Your task to perform on an android device: Clear the cart on target.com. Add acer predator to the cart on target.com Image 0: 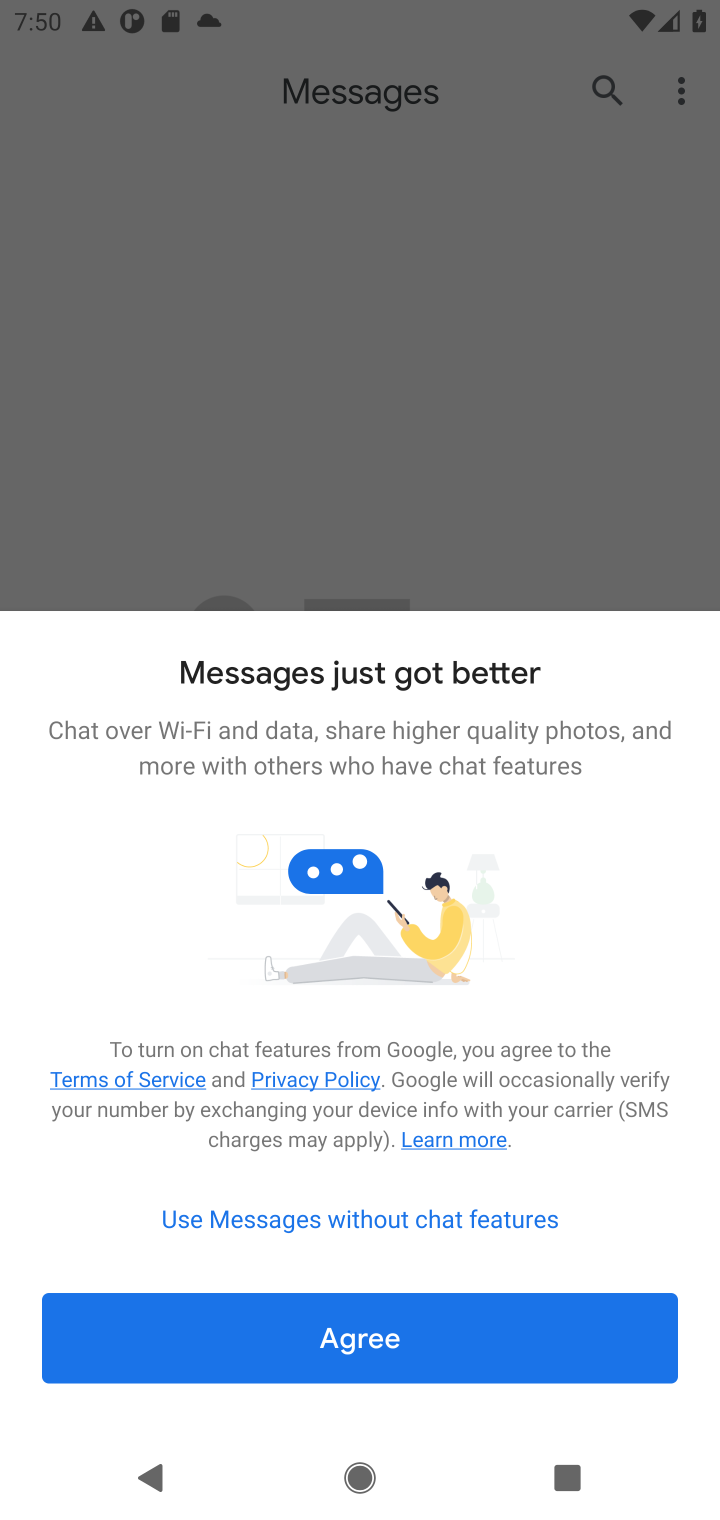
Step 0: press home button
Your task to perform on an android device: Clear the cart on target.com. Add acer predator to the cart on target.com Image 1: 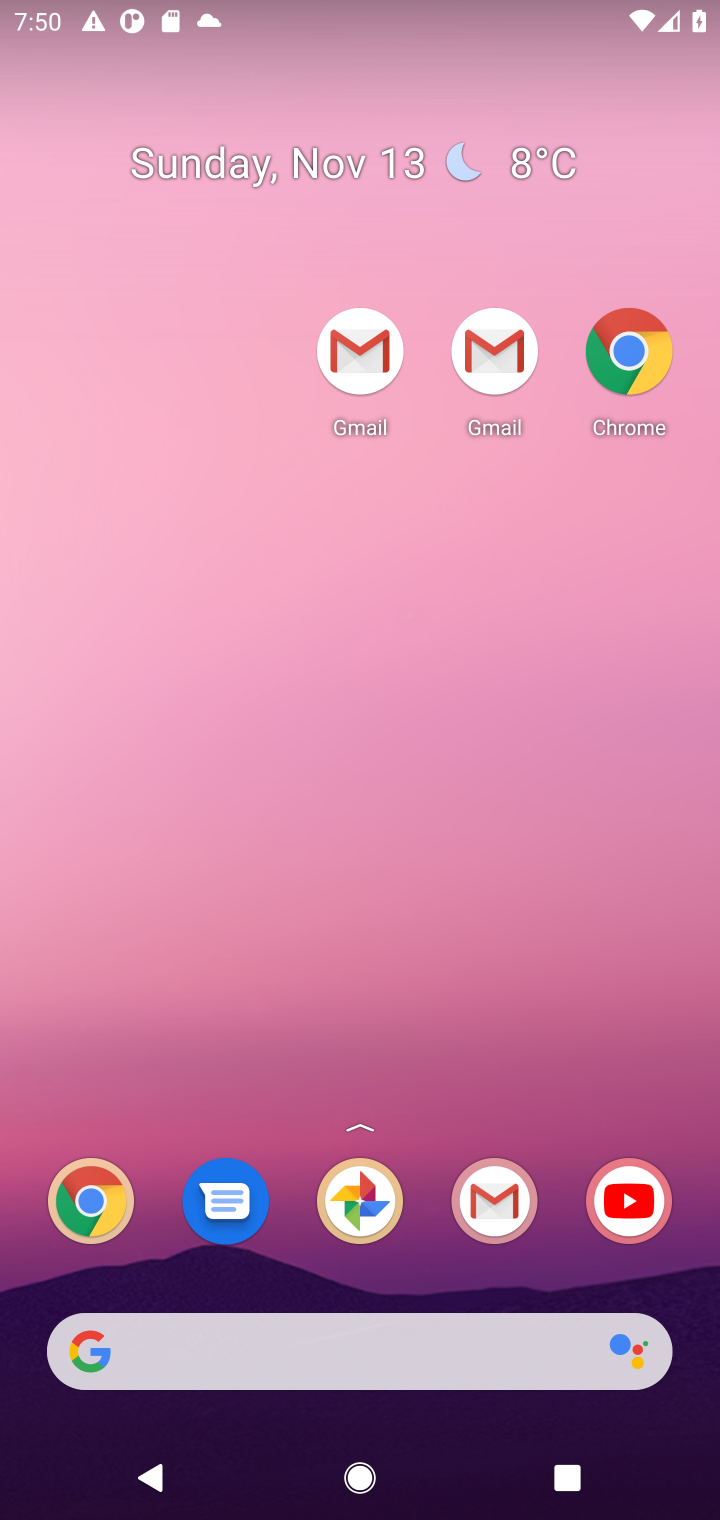
Step 1: drag from (435, 1287) to (9, 142)
Your task to perform on an android device: Clear the cart on target.com. Add acer predator to the cart on target.com Image 2: 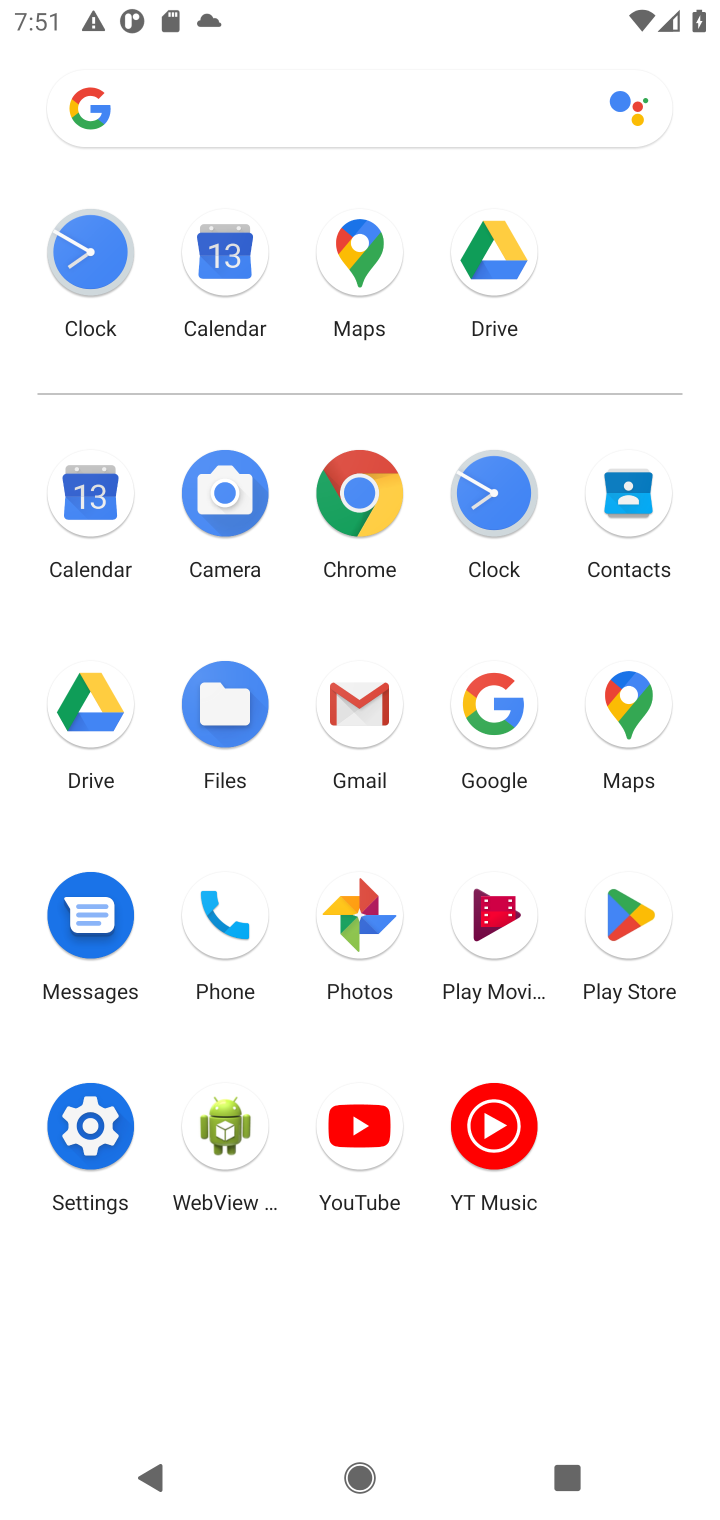
Step 2: click (362, 506)
Your task to perform on an android device: Clear the cart on target.com. Add acer predator to the cart on target.com Image 3: 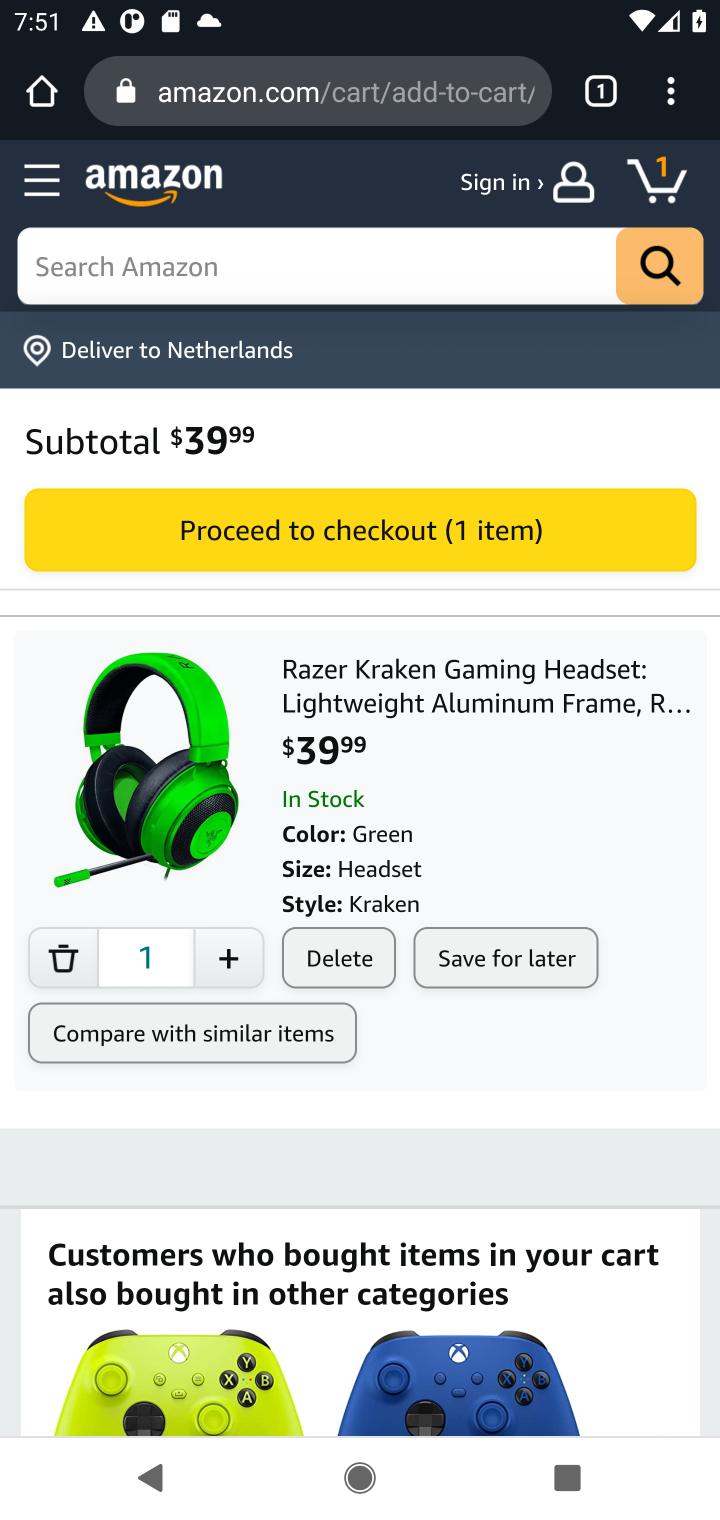
Step 3: click (350, 86)
Your task to perform on an android device: Clear the cart on target.com. Add acer predator to the cart on target.com Image 4: 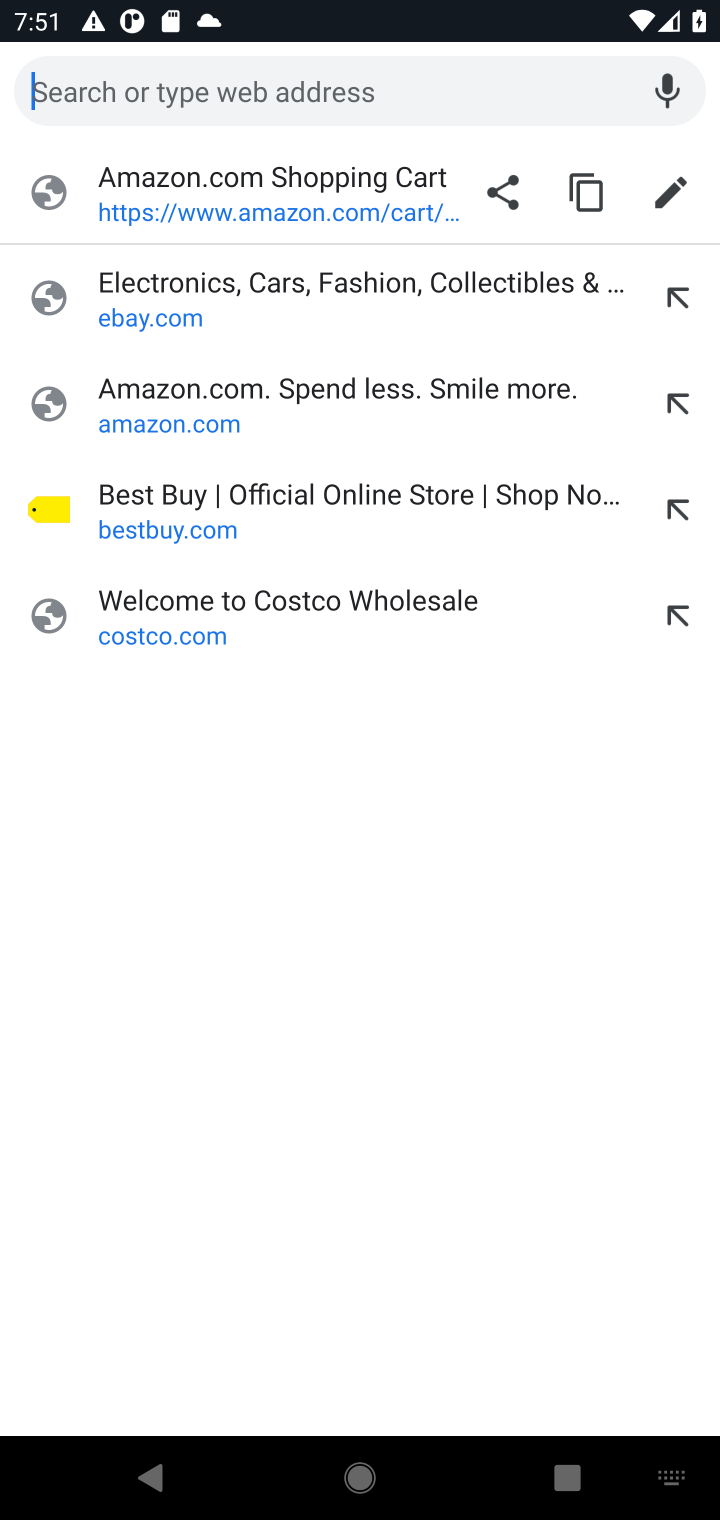
Step 4: type "target.com"
Your task to perform on an android device: Clear the cart on target.com. Add acer predator to the cart on target.com Image 5: 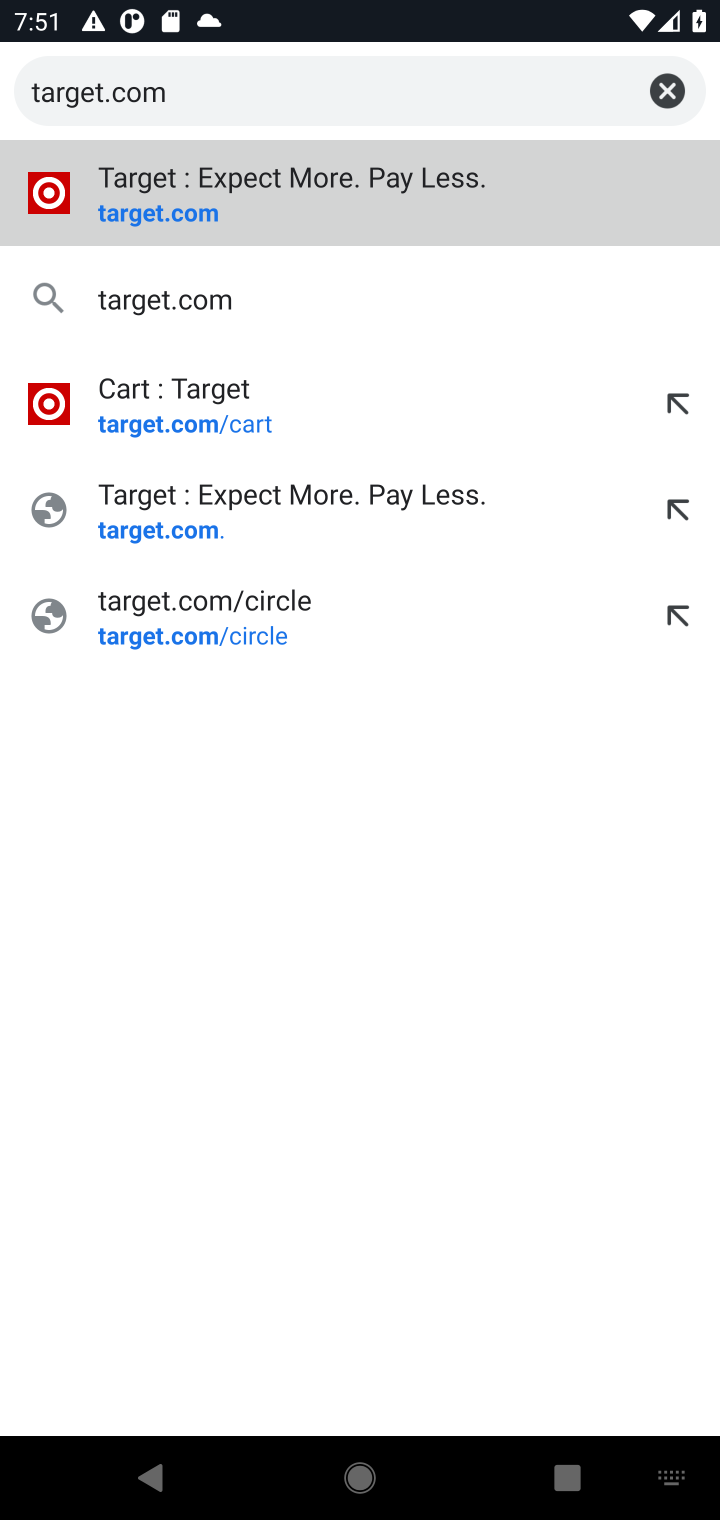
Step 5: press enter
Your task to perform on an android device: Clear the cart on target.com. Add acer predator to the cart on target.com Image 6: 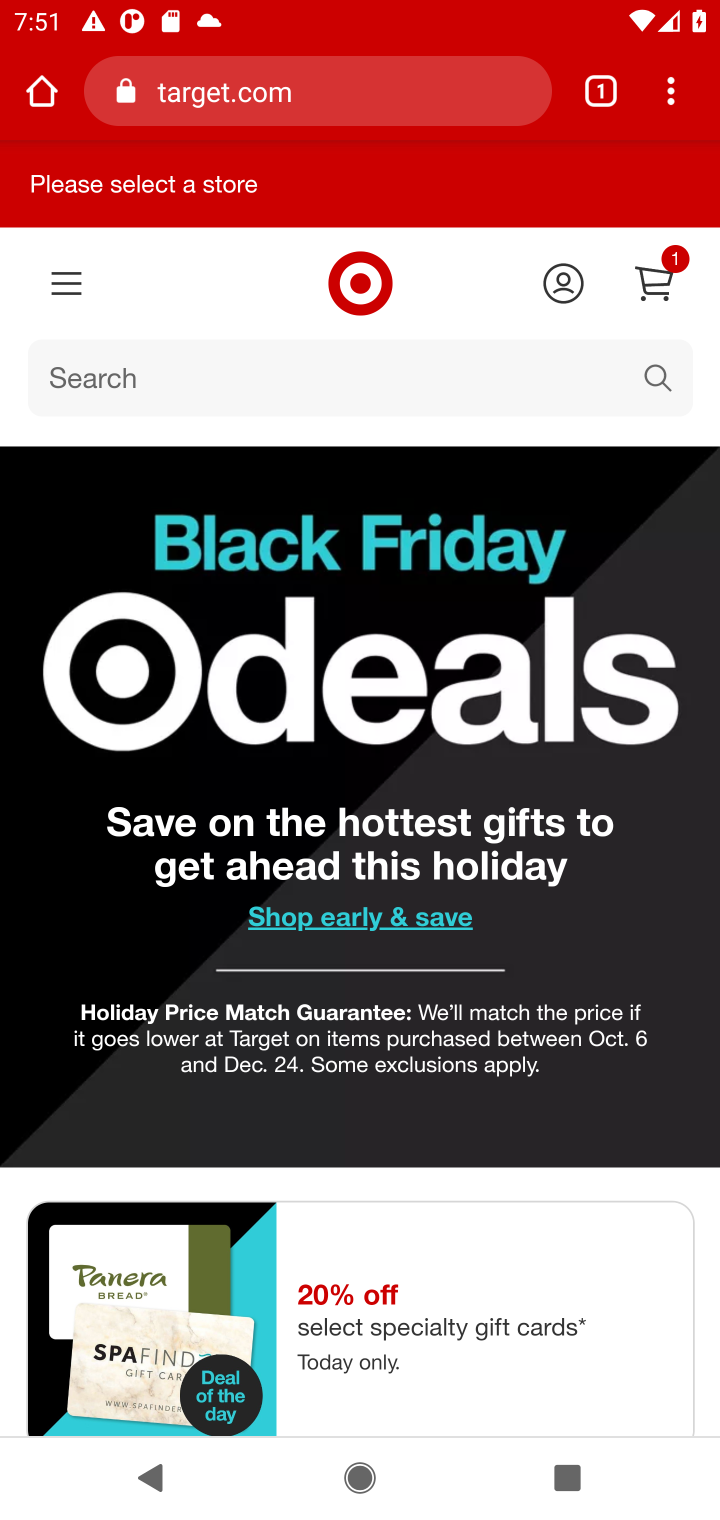
Step 6: click (667, 280)
Your task to perform on an android device: Clear the cart on target.com. Add acer predator to the cart on target.com Image 7: 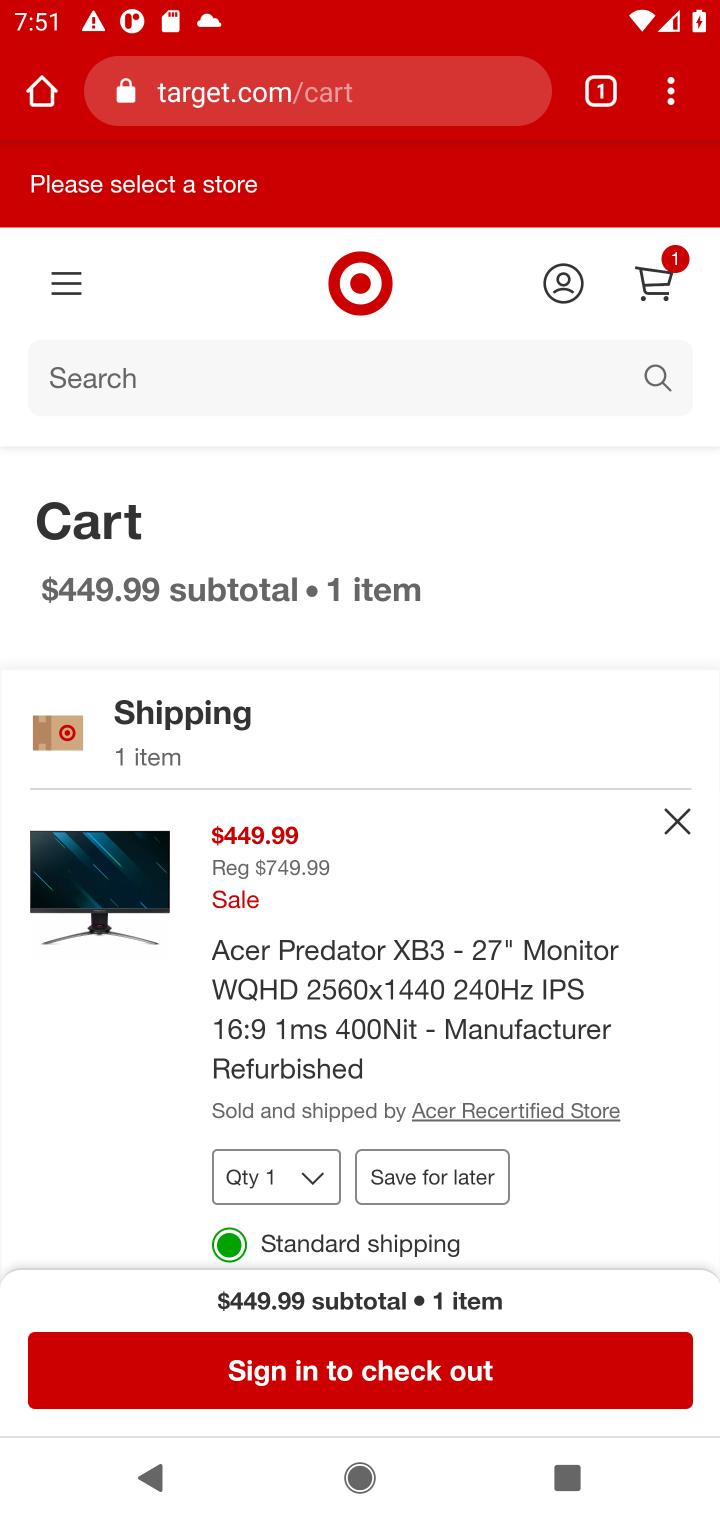
Step 7: click (687, 822)
Your task to perform on an android device: Clear the cart on target.com. Add acer predator to the cart on target.com Image 8: 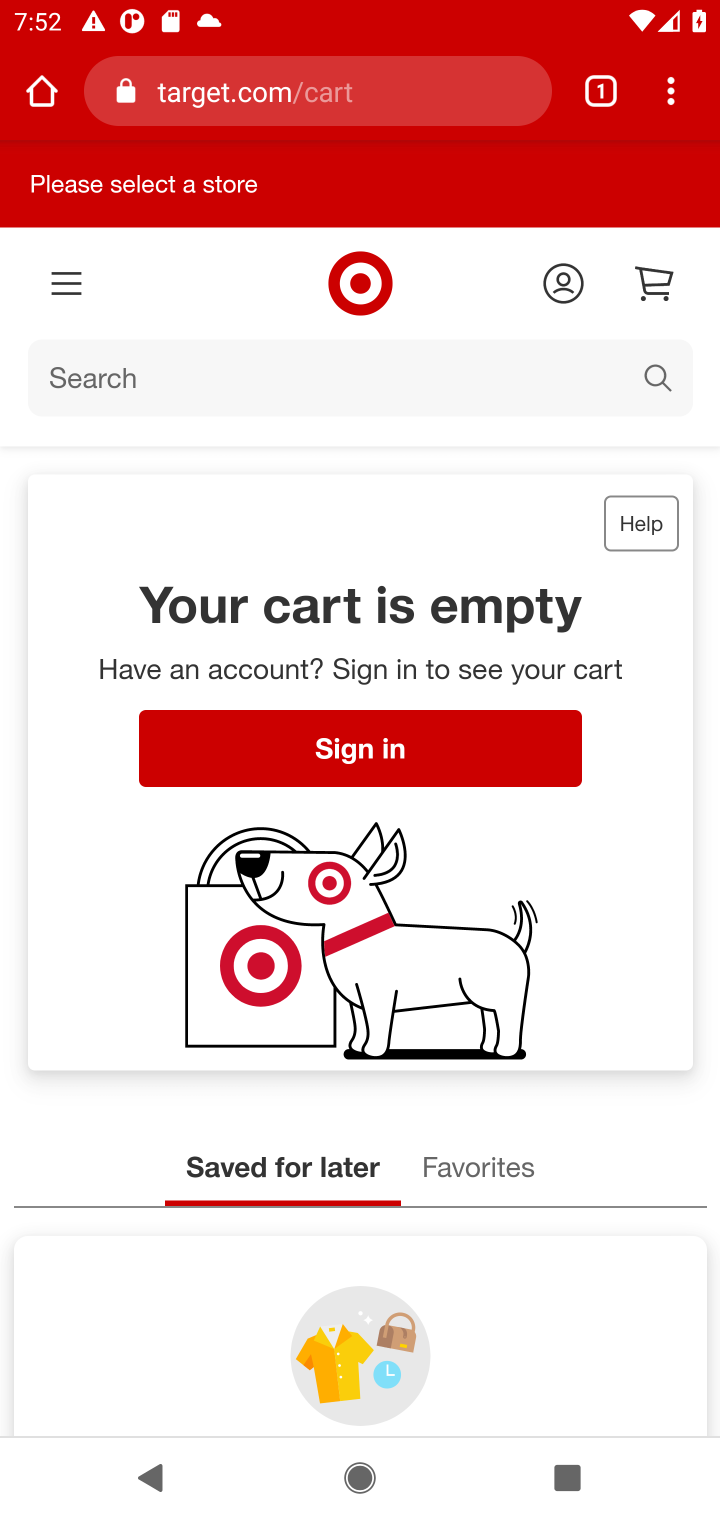
Step 8: click (217, 370)
Your task to perform on an android device: Clear the cart on target.com. Add acer predator to the cart on target.com Image 9: 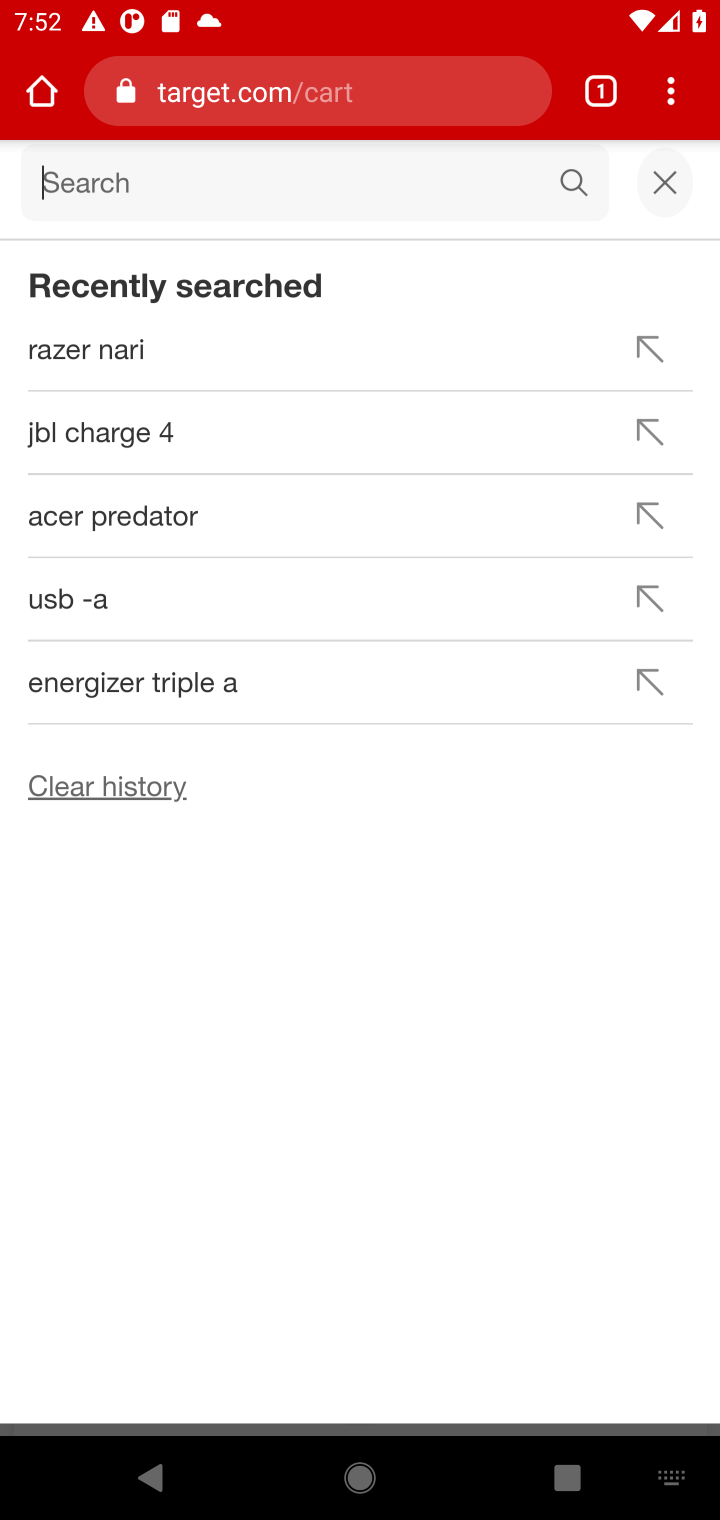
Step 9: type ""
Your task to perform on an android device: Clear the cart on target.com. Add acer predator to the cart on target.com Image 10: 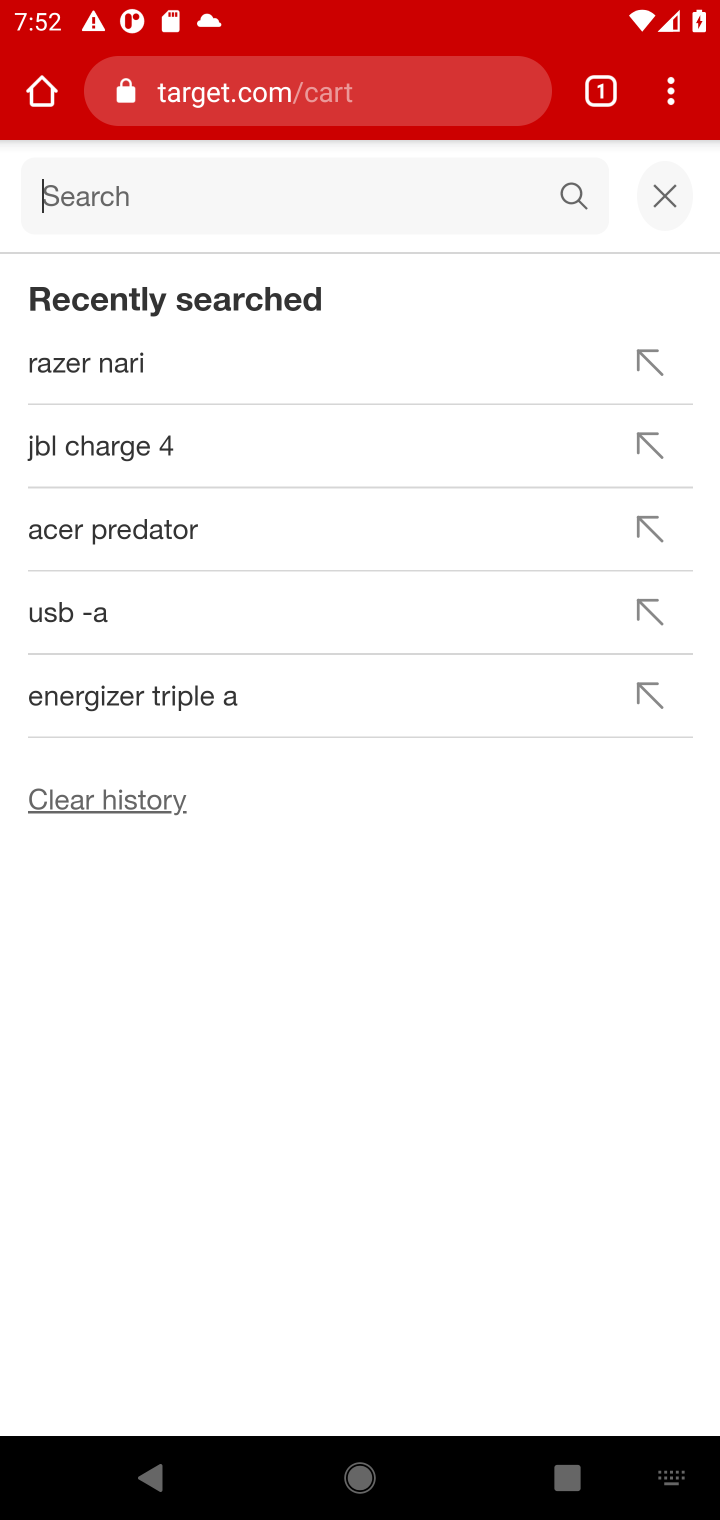
Step 10: type "acer predator"
Your task to perform on an android device: Clear the cart on target.com. Add acer predator to the cart on target.com Image 11: 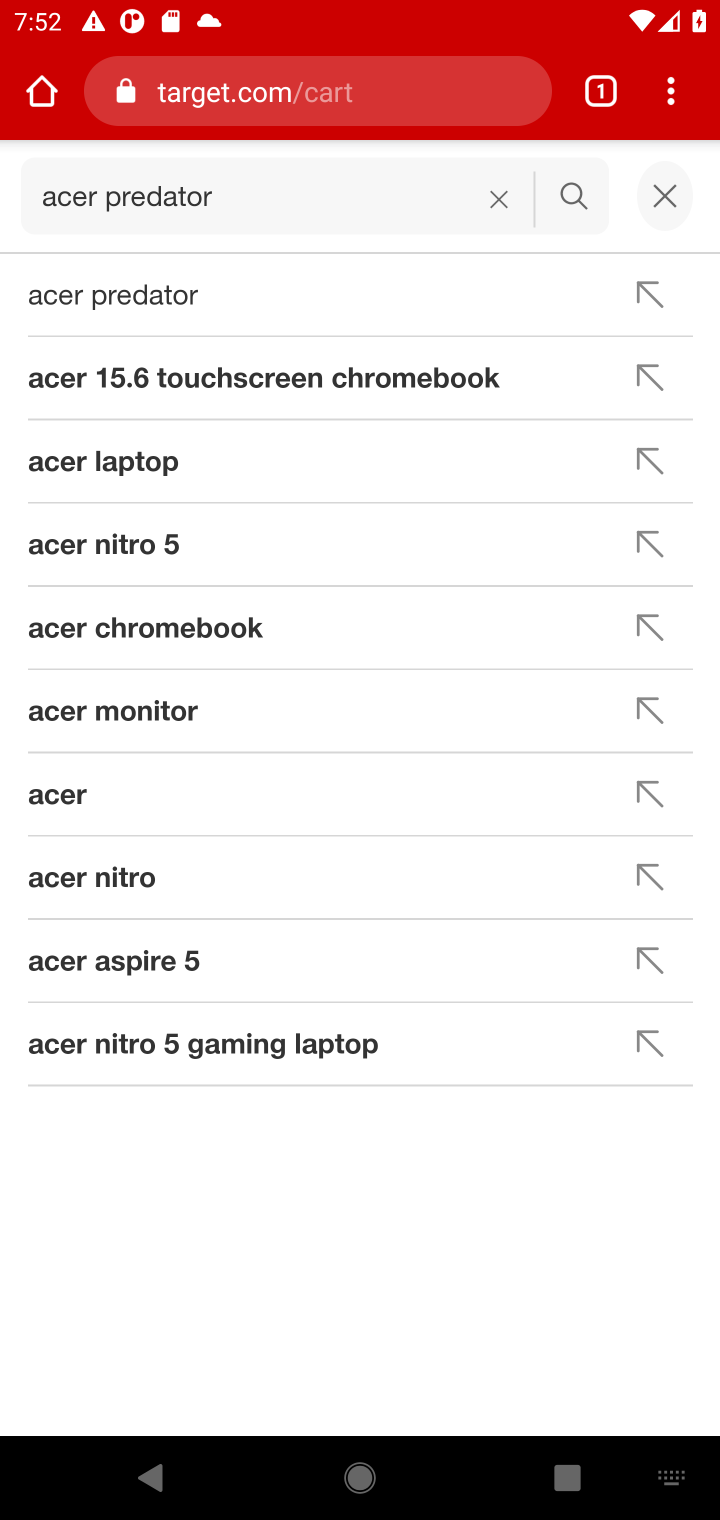
Step 11: press enter
Your task to perform on an android device: Clear the cart on target.com. Add acer predator to the cart on target.com Image 12: 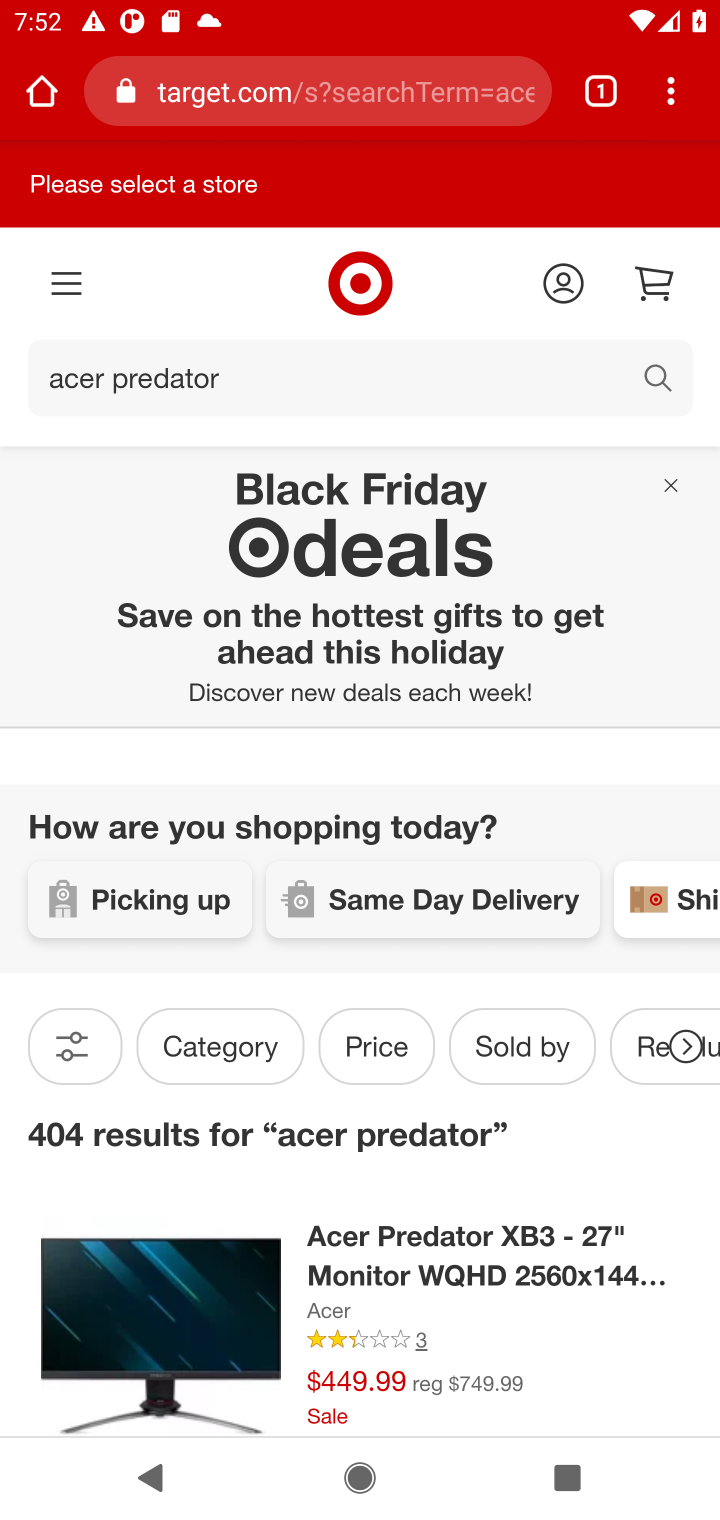
Step 12: drag from (479, 1292) to (437, 702)
Your task to perform on an android device: Clear the cart on target.com. Add acer predator to the cart on target.com Image 13: 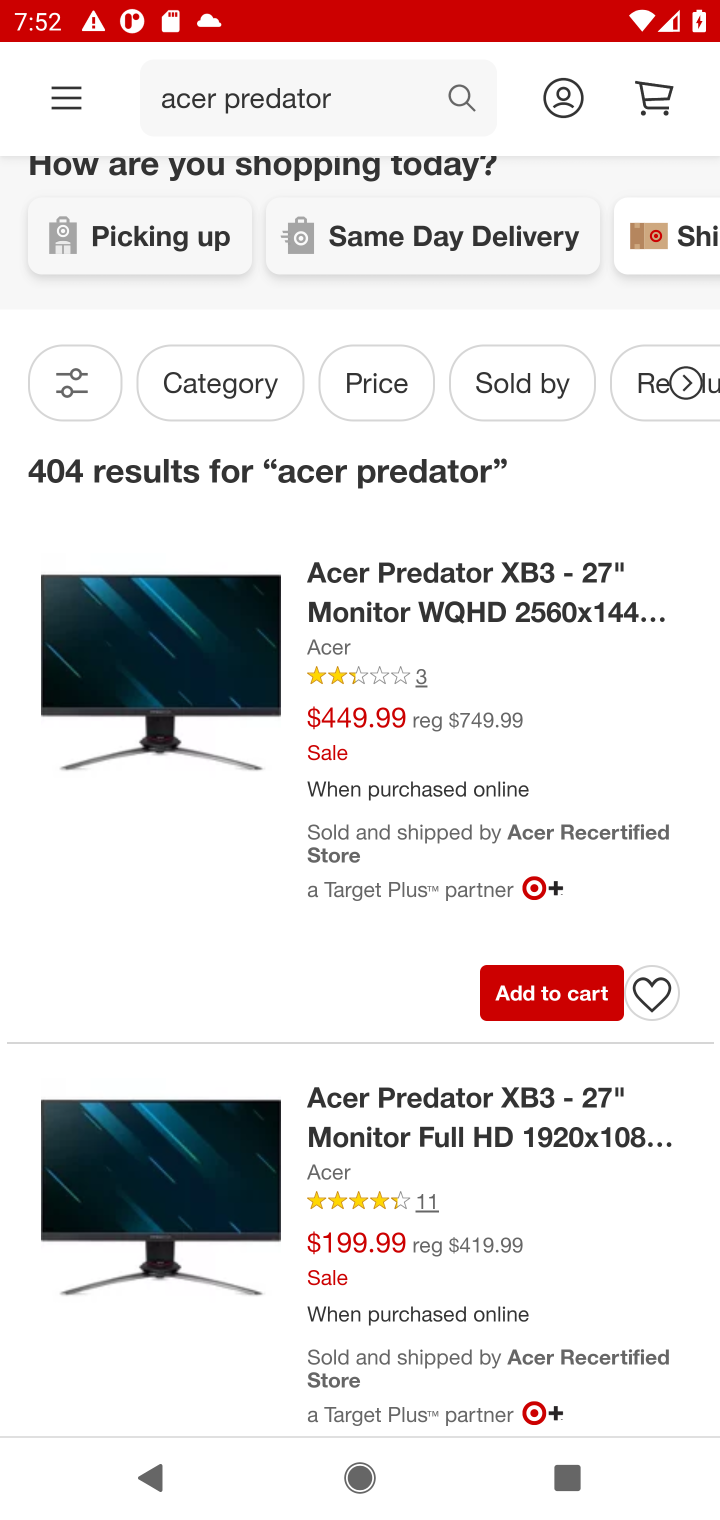
Step 13: click (533, 997)
Your task to perform on an android device: Clear the cart on target.com. Add acer predator to the cart on target.com Image 14: 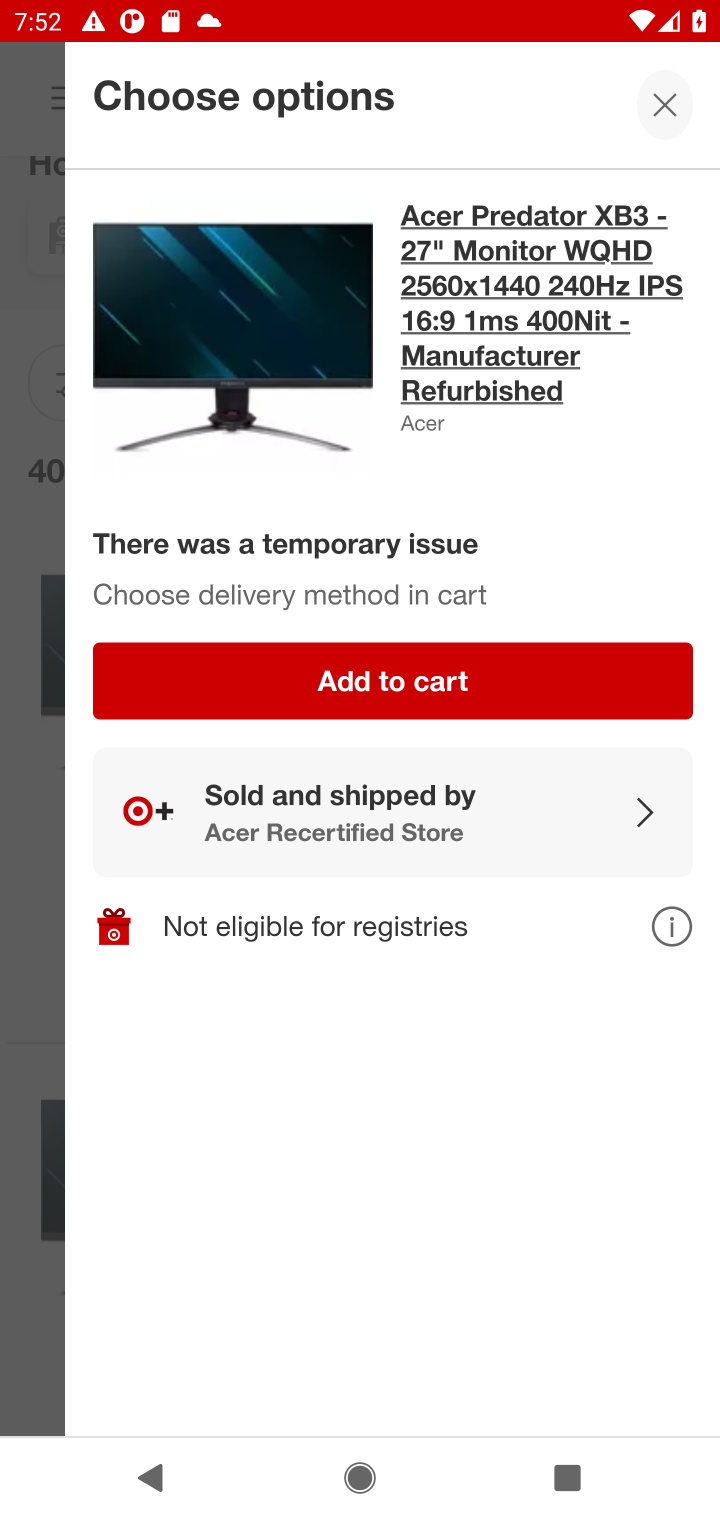
Step 14: click (525, 691)
Your task to perform on an android device: Clear the cart on target.com. Add acer predator to the cart on target.com Image 15: 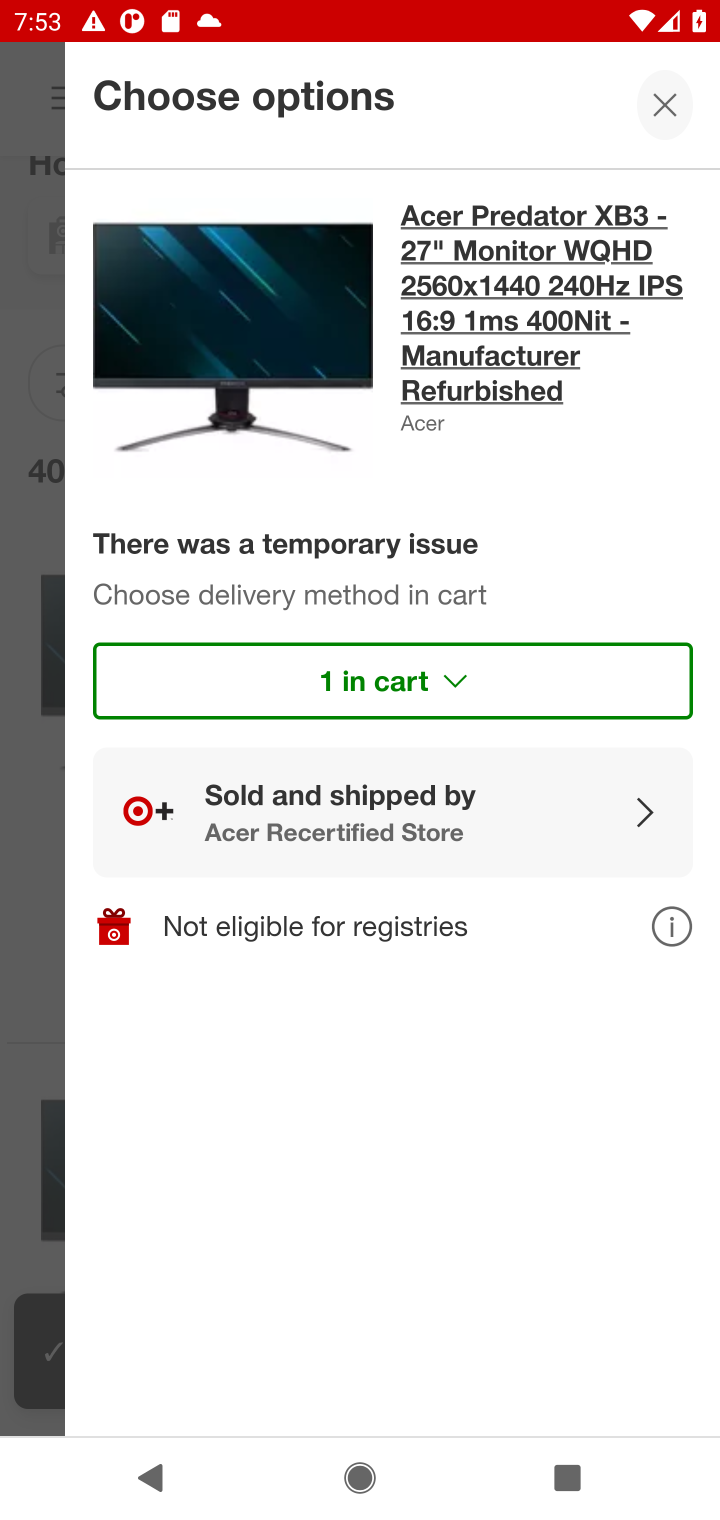
Step 15: task complete